Your task to perform on an android device: What's the weather going to be this weekend? Image 0: 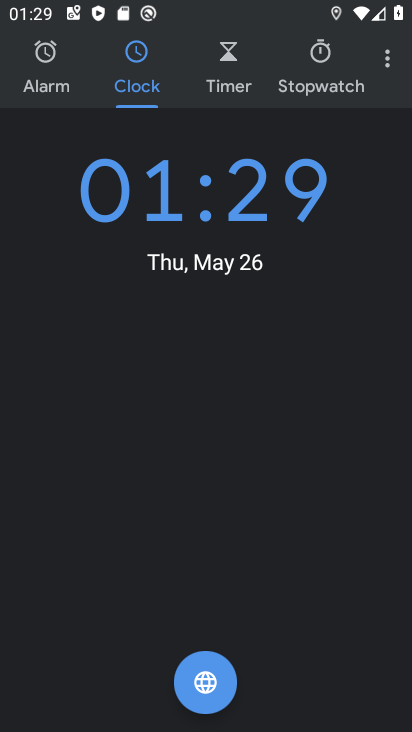
Step 0: press home button
Your task to perform on an android device: What's the weather going to be this weekend? Image 1: 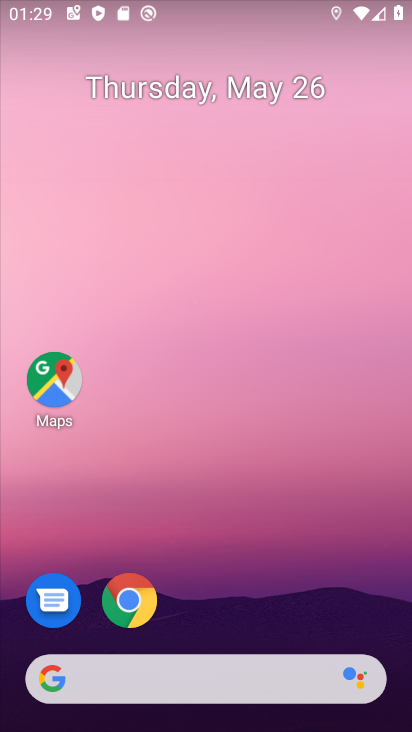
Step 1: drag from (324, 552) to (218, 103)
Your task to perform on an android device: What's the weather going to be this weekend? Image 2: 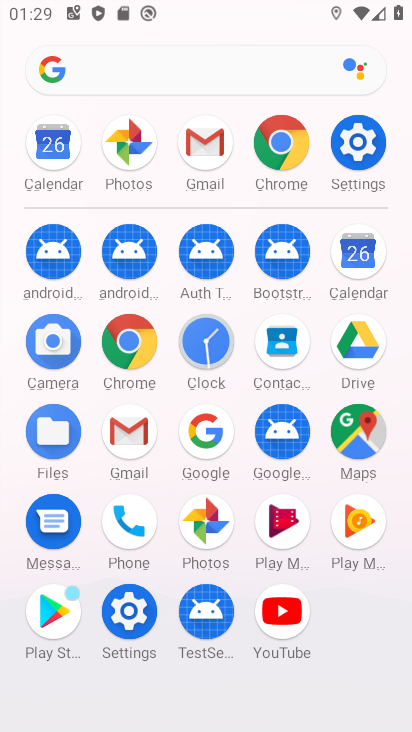
Step 2: click (228, 426)
Your task to perform on an android device: What's the weather going to be this weekend? Image 3: 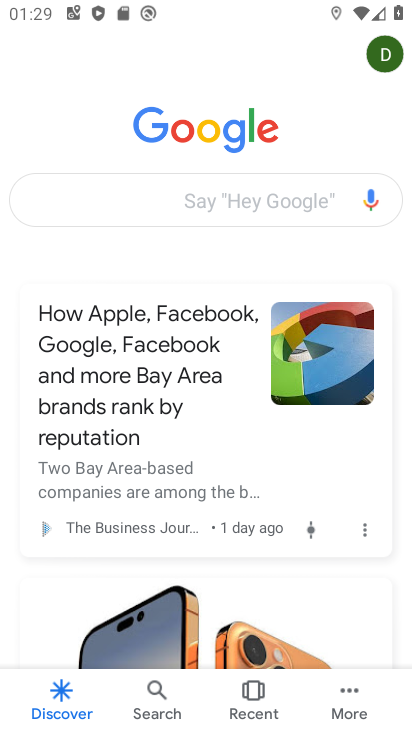
Step 3: click (294, 201)
Your task to perform on an android device: What's the weather going to be this weekend? Image 4: 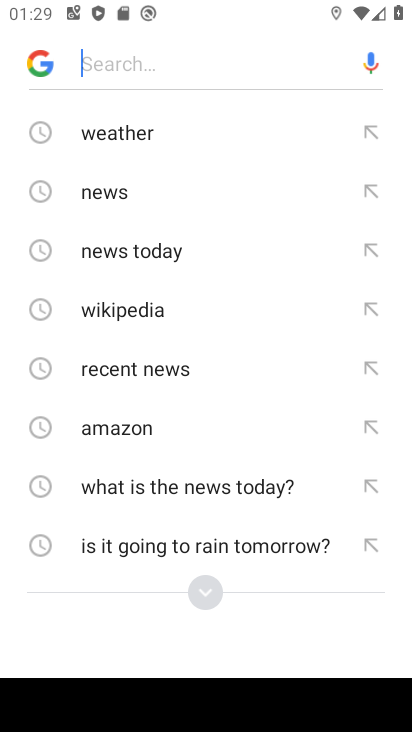
Step 4: click (79, 146)
Your task to perform on an android device: What's the weather going to be this weekend? Image 5: 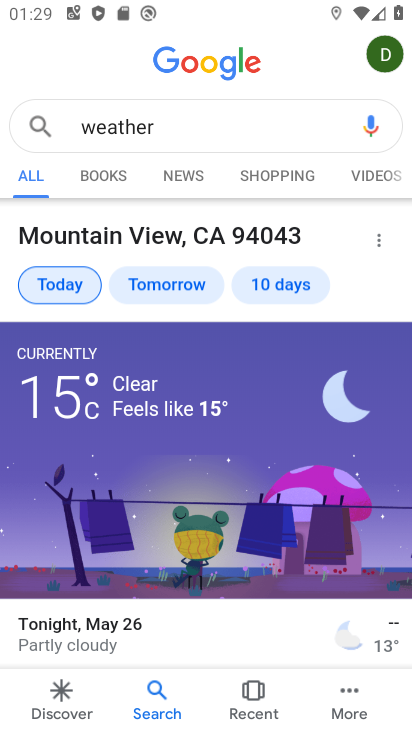
Step 5: click (290, 284)
Your task to perform on an android device: What's the weather going to be this weekend? Image 6: 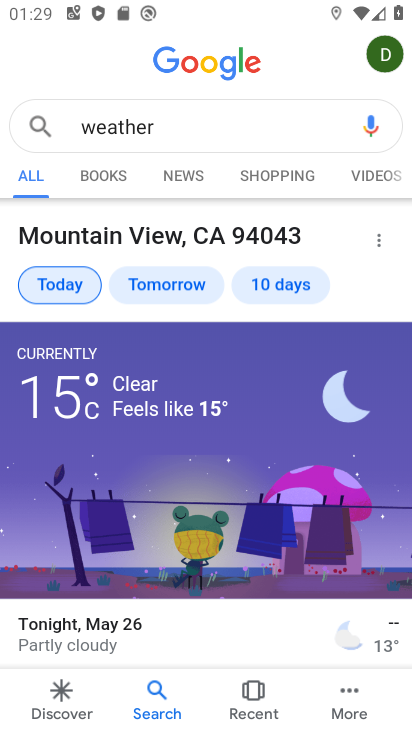
Step 6: click (296, 276)
Your task to perform on an android device: What's the weather going to be this weekend? Image 7: 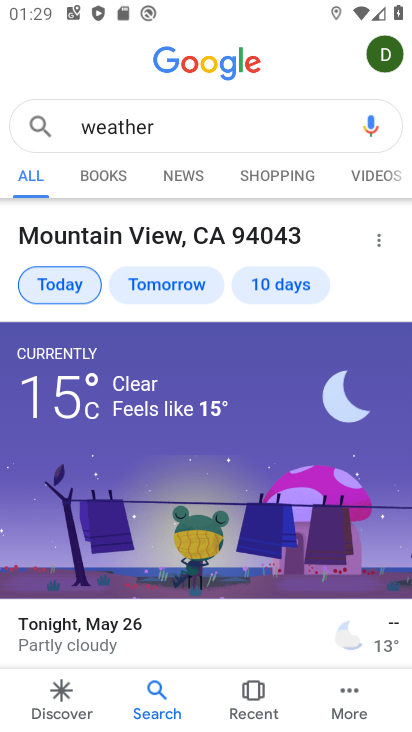
Step 7: click (304, 282)
Your task to perform on an android device: What's the weather going to be this weekend? Image 8: 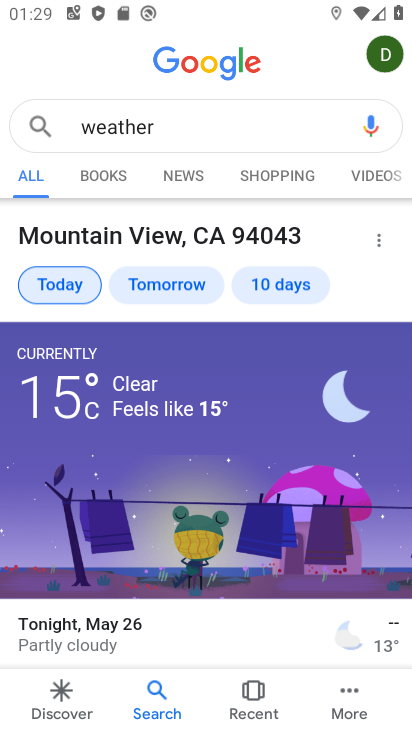
Step 8: click (285, 290)
Your task to perform on an android device: What's the weather going to be this weekend? Image 9: 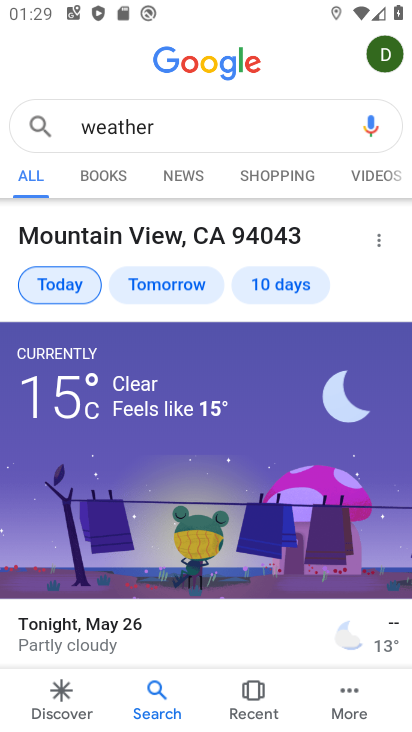
Step 9: click (277, 286)
Your task to perform on an android device: What's the weather going to be this weekend? Image 10: 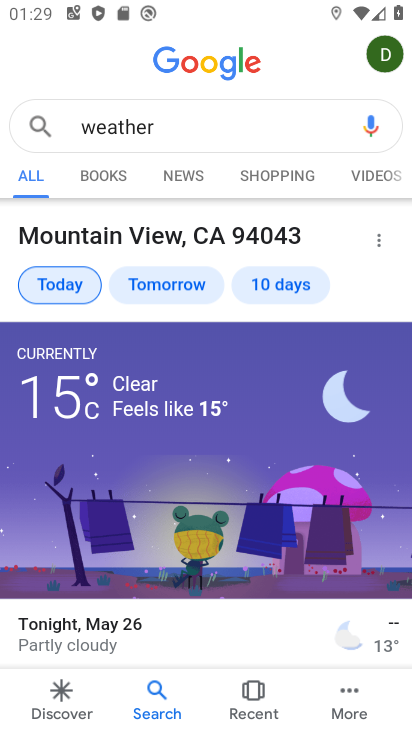
Step 10: click (277, 286)
Your task to perform on an android device: What's the weather going to be this weekend? Image 11: 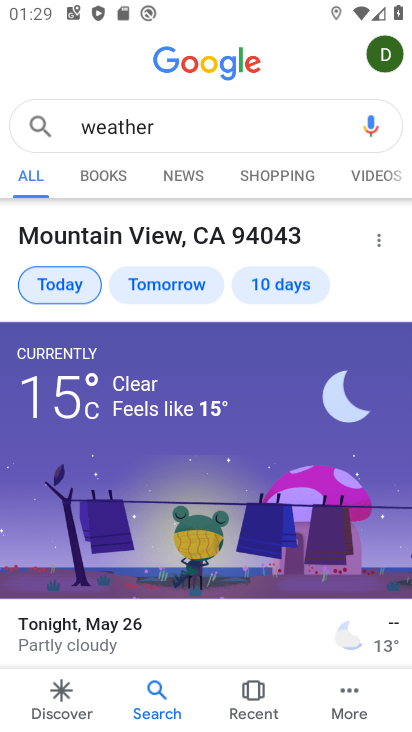
Step 11: click (277, 286)
Your task to perform on an android device: What's the weather going to be this weekend? Image 12: 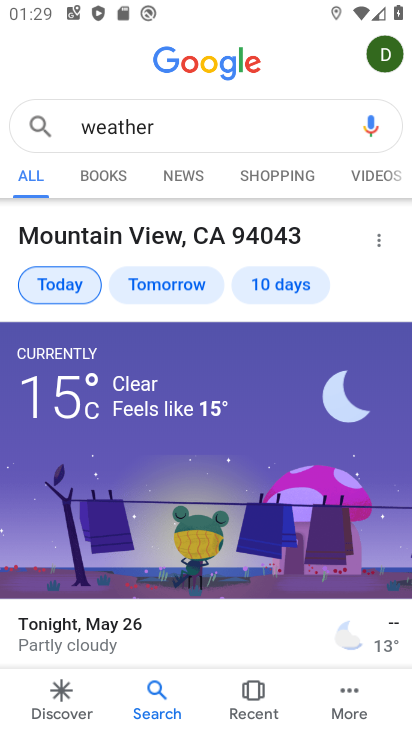
Step 12: click (280, 286)
Your task to perform on an android device: What's the weather going to be this weekend? Image 13: 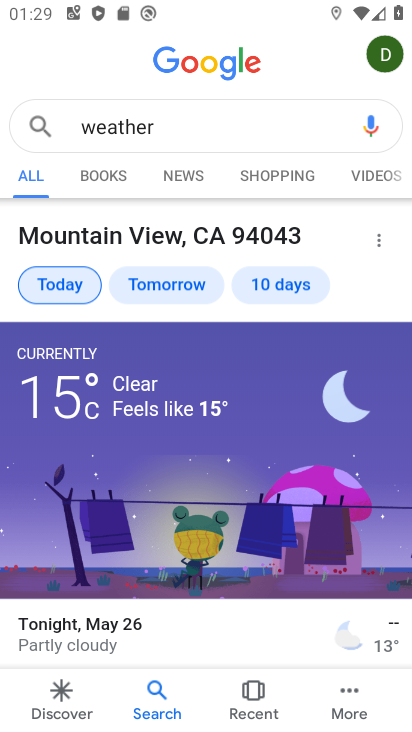
Step 13: click (280, 286)
Your task to perform on an android device: What's the weather going to be this weekend? Image 14: 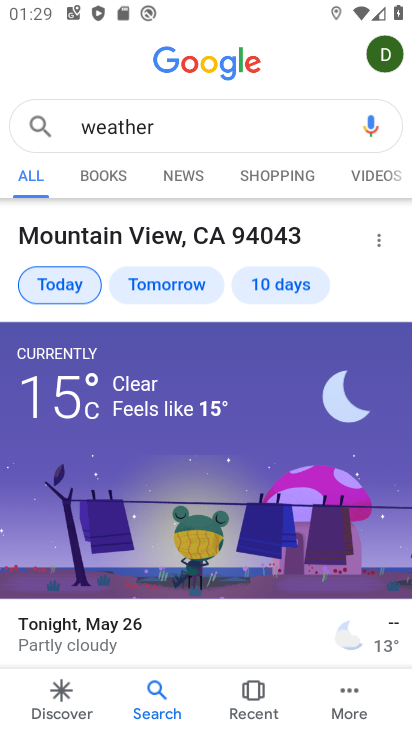
Step 14: click (280, 286)
Your task to perform on an android device: What's the weather going to be this weekend? Image 15: 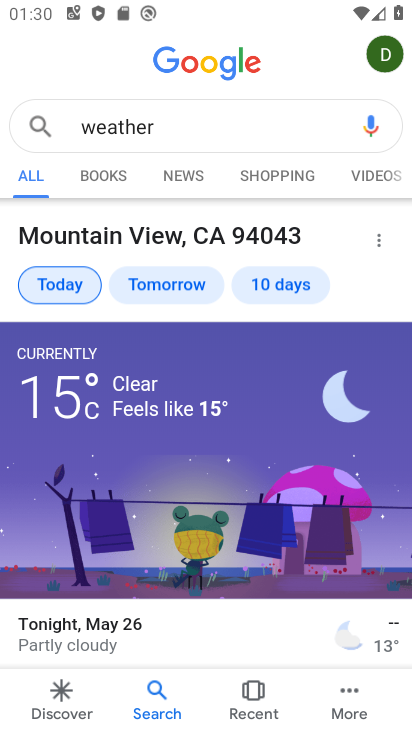
Step 15: click (256, 290)
Your task to perform on an android device: What's the weather going to be this weekend? Image 16: 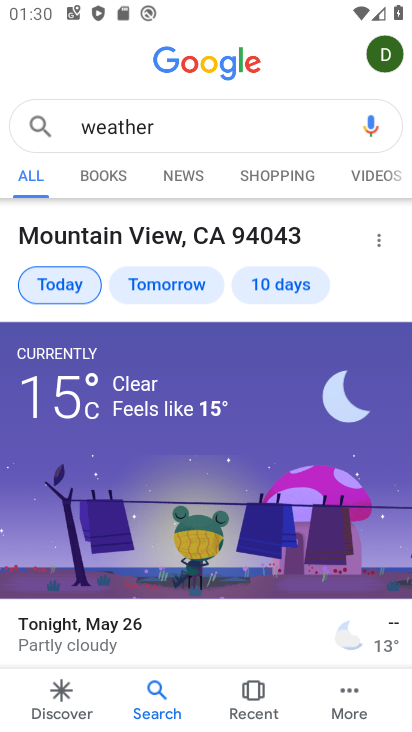
Step 16: click (256, 290)
Your task to perform on an android device: What's the weather going to be this weekend? Image 17: 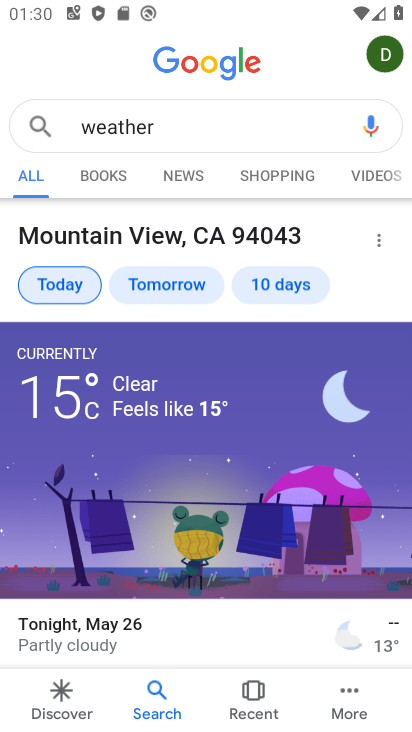
Step 17: click (263, 288)
Your task to perform on an android device: What's the weather going to be this weekend? Image 18: 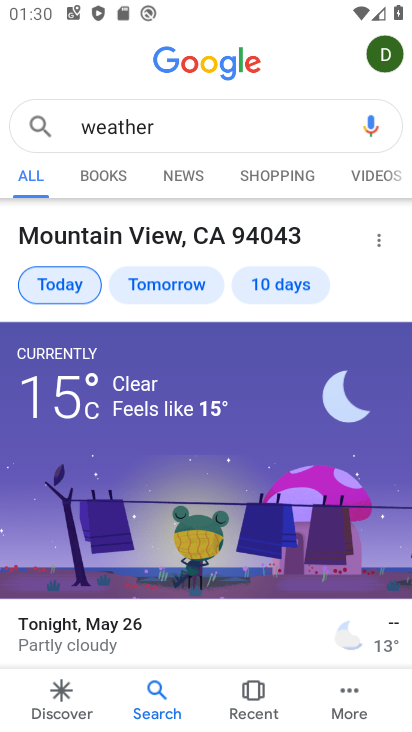
Step 18: click (264, 291)
Your task to perform on an android device: What's the weather going to be this weekend? Image 19: 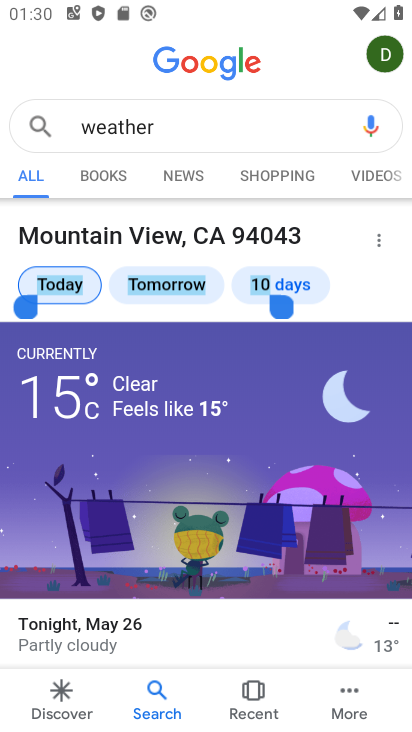
Step 19: click (276, 274)
Your task to perform on an android device: What's the weather going to be this weekend? Image 20: 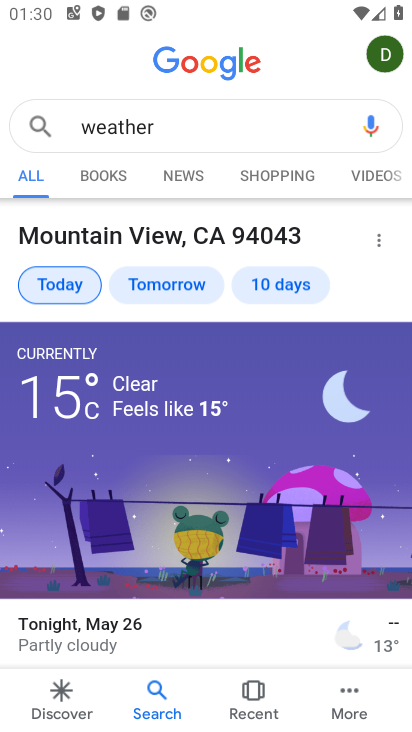
Step 20: click (287, 279)
Your task to perform on an android device: What's the weather going to be this weekend? Image 21: 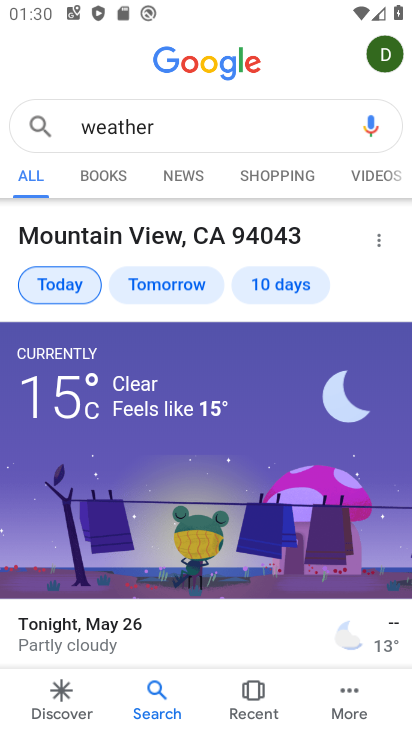
Step 21: click (301, 297)
Your task to perform on an android device: What's the weather going to be this weekend? Image 22: 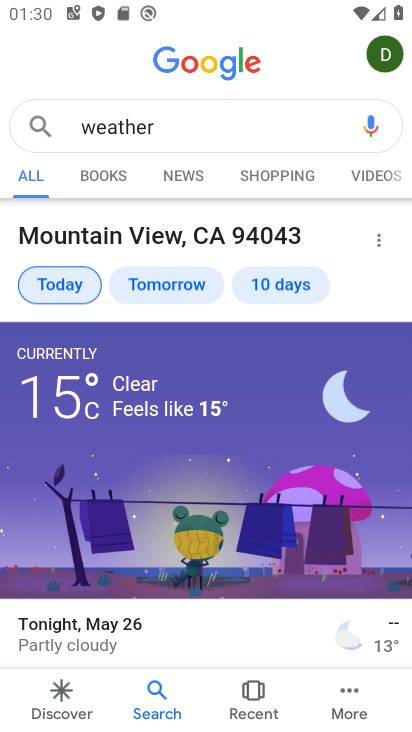
Step 22: click (302, 298)
Your task to perform on an android device: What's the weather going to be this weekend? Image 23: 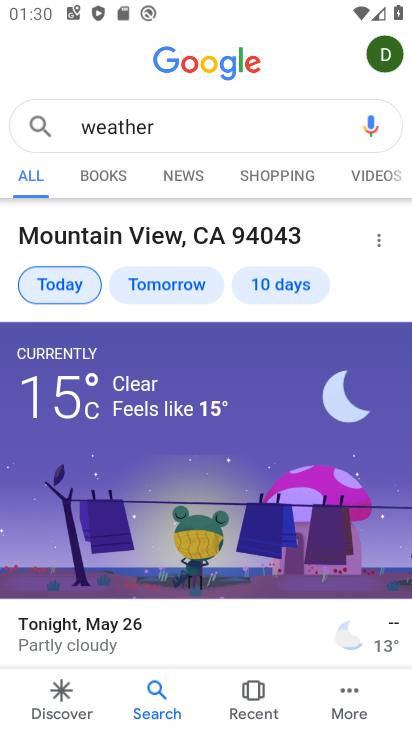
Step 23: click (300, 290)
Your task to perform on an android device: What's the weather going to be this weekend? Image 24: 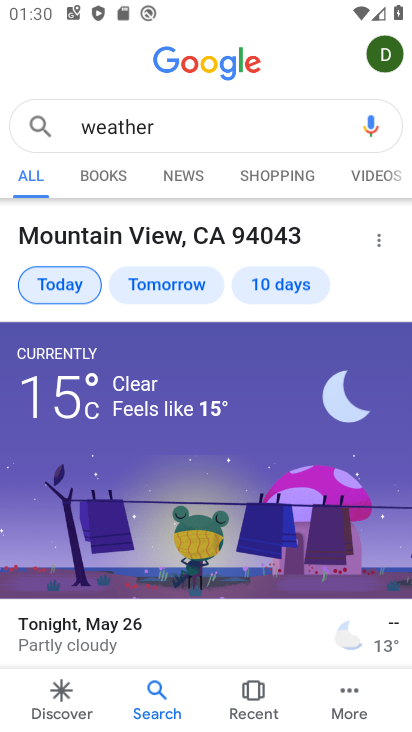
Step 24: drag from (285, 572) to (366, 193)
Your task to perform on an android device: What's the weather going to be this weekend? Image 25: 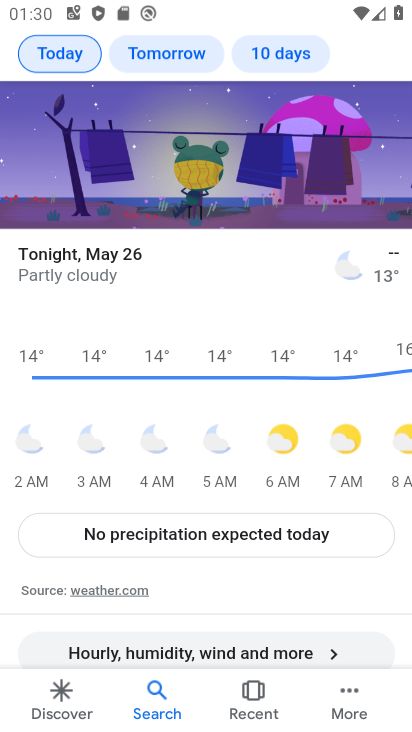
Step 25: drag from (331, 209) to (340, 584)
Your task to perform on an android device: What's the weather going to be this weekend? Image 26: 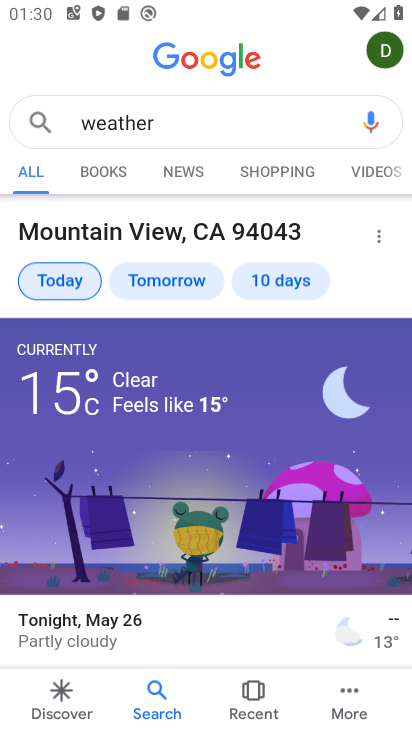
Step 26: click (261, 283)
Your task to perform on an android device: What's the weather going to be this weekend? Image 27: 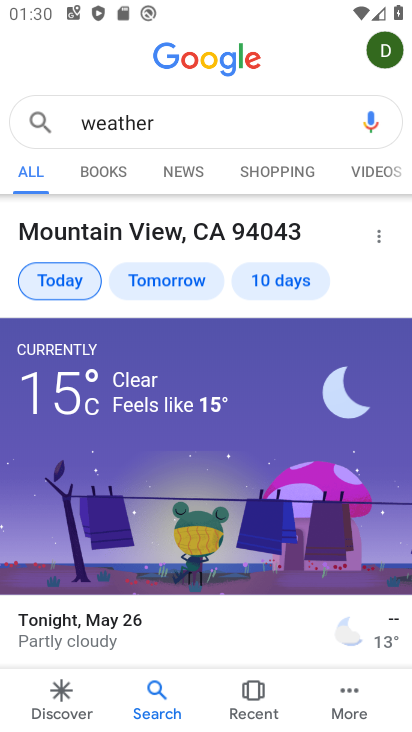
Step 27: click (261, 283)
Your task to perform on an android device: What's the weather going to be this weekend? Image 28: 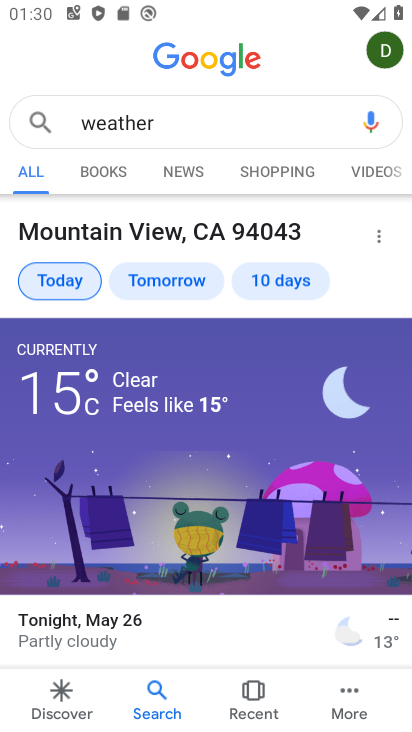
Step 28: click (261, 283)
Your task to perform on an android device: What's the weather going to be this weekend? Image 29: 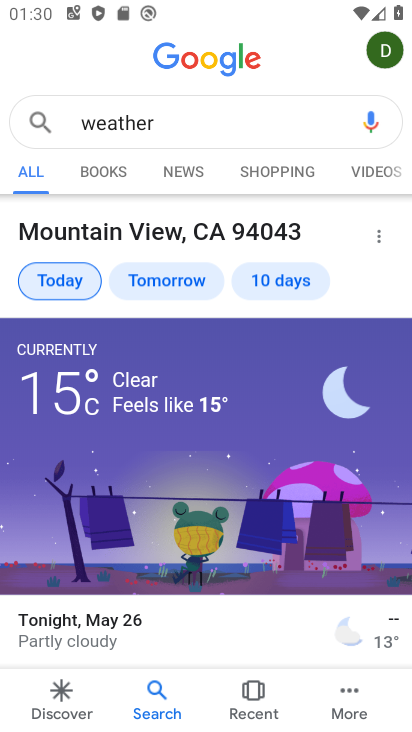
Step 29: click (261, 283)
Your task to perform on an android device: What's the weather going to be this weekend? Image 30: 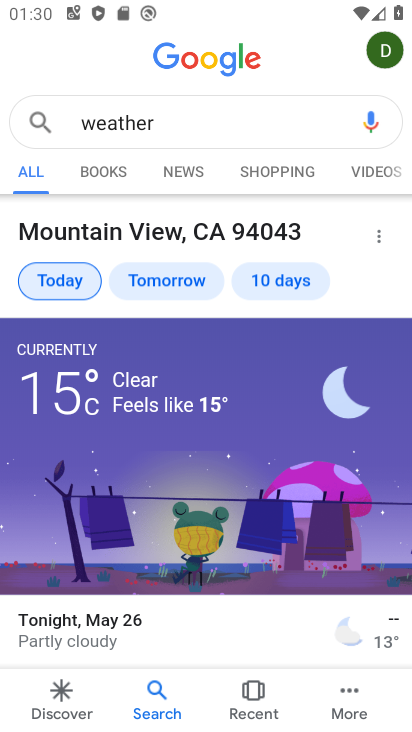
Step 30: click (258, 280)
Your task to perform on an android device: What's the weather going to be this weekend? Image 31: 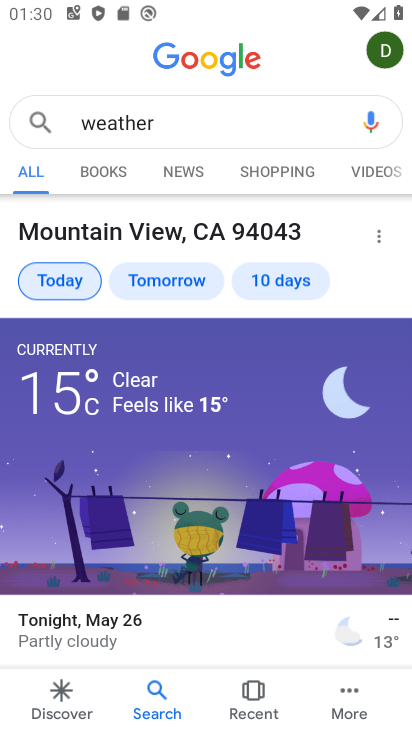
Step 31: click (211, 100)
Your task to perform on an android device: What's the weather going to be this weekend? Image 32: 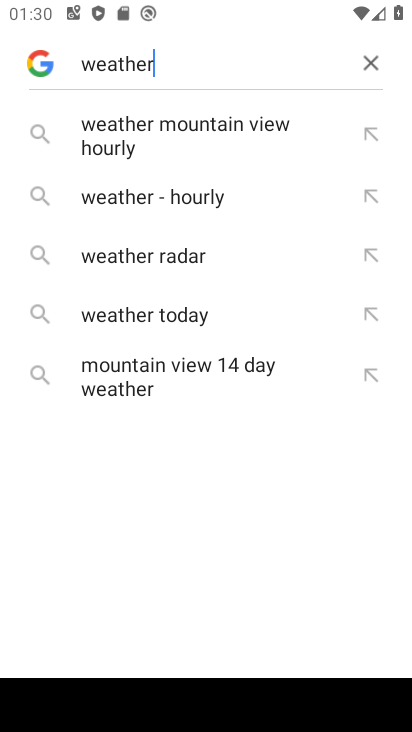
Step 32: click (372, 64)
Your task to perform on an android device: What's the weather going to be this weekend? Image 33: 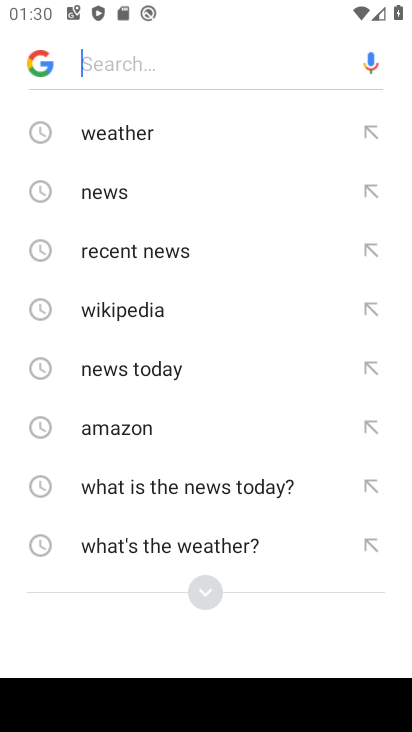
Step 33: click (190, 132)
Your task to perform on an android device: What's the weather going to be this weekend? Image 34: 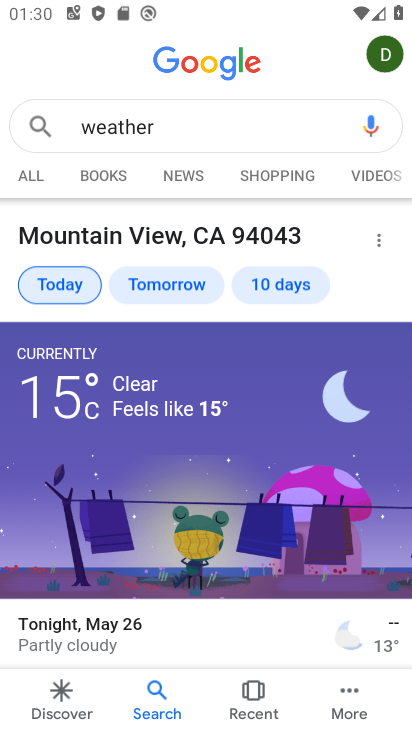
Step 34: click (272, 283)
Your task to perform on an android device: What's the weather going to be this weekend? Image 35: 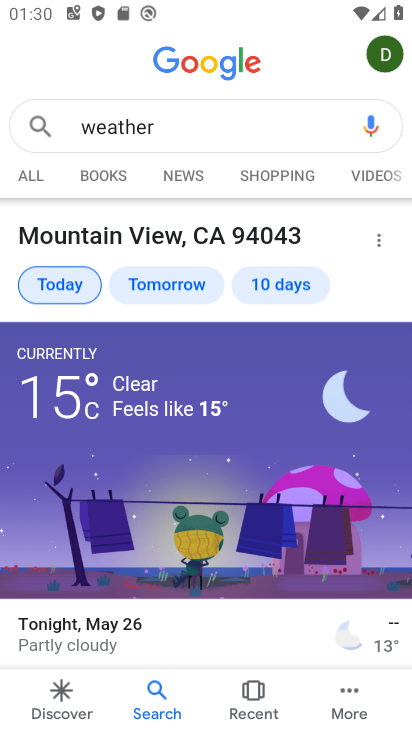
Step 35: click (283, 282)
Your task to perform on an android device: What's the weather going to be this weekend? Image 36: 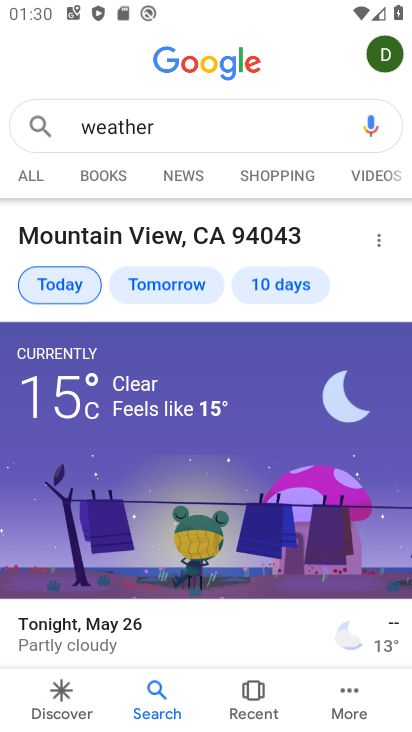
Step 36: click (283, 282)
Your task to perform on an android device: What's the weather going to be this weekend? Image 37: 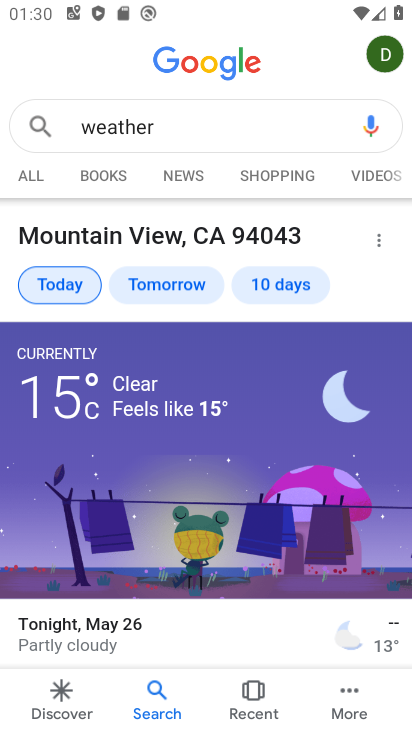
Step 37: click (283, 282)
Your task to perform on an android device: What's the weather going to be this weekend? Image 38: 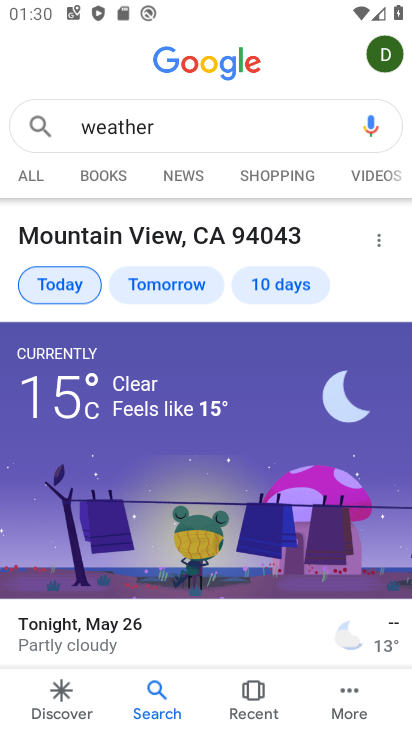
Step 38: click (283, 282)
Your task to perform on an android device: What's the weather going to be this weekend? Image 39: 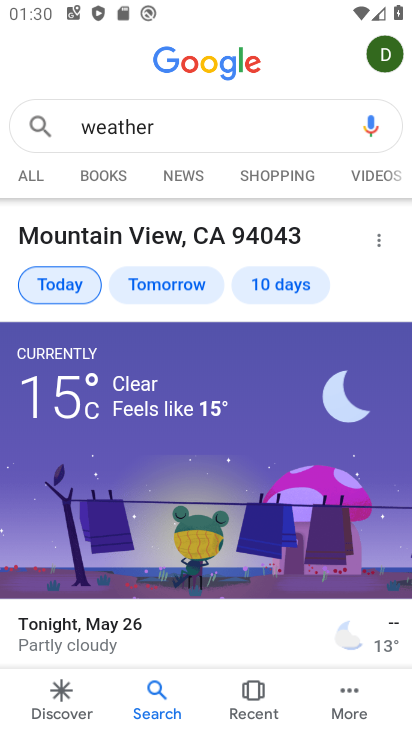
Step 39: click (283, 282)
Your task to perform on an android device: What's the weather going to be this weekend? Image 40: 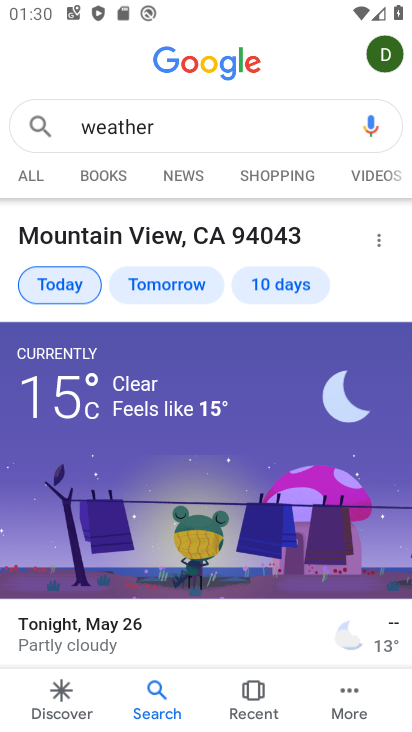
Step 40: click (283, 281)
Your task to perform on an android device: What's the weather going to be this weekend? Image 41: 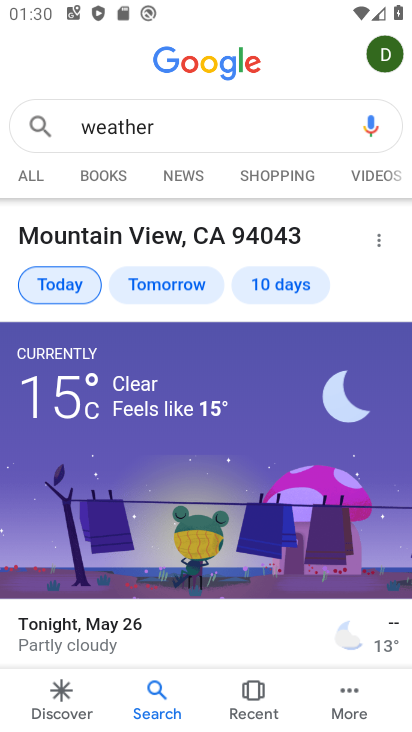
Step 41: click (231, 209)
Your task to perform on an android device: What's the weather going to be this weekend? Image 42: 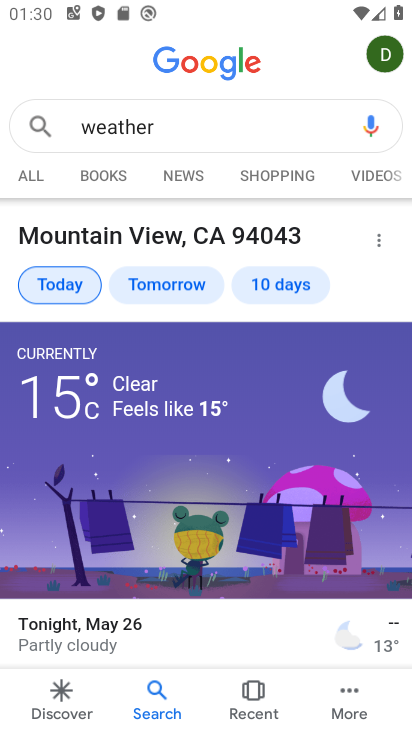
Step 42: click (175, 115)
Your task to perform on an android device: What's the weather going to be this weekend? Image 43: 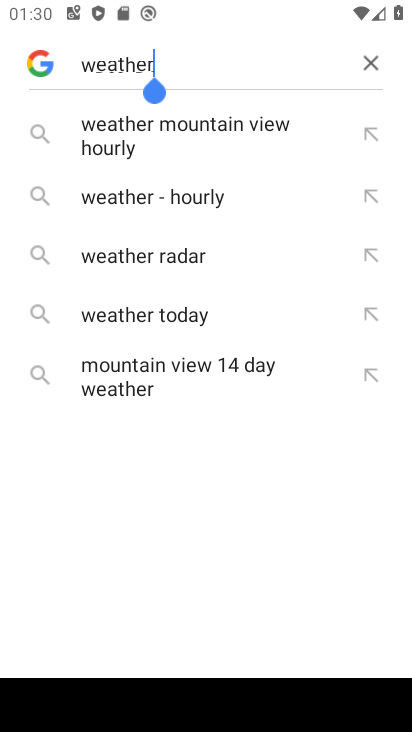
Step 43: click (378, 53)
Your task to perform on an android device: What's the weather going to be this weekend? Image 44: 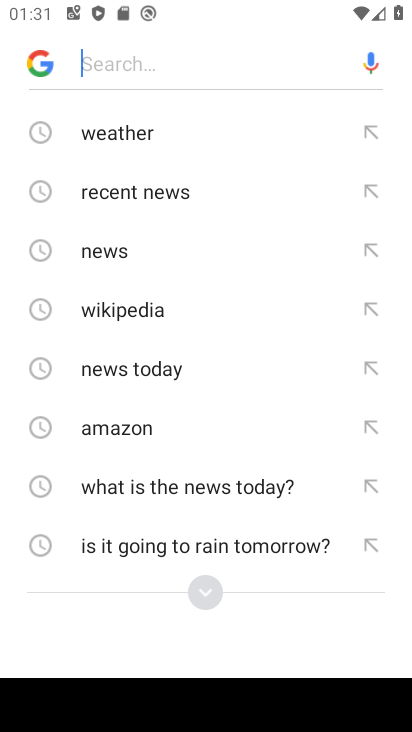
Step 44: type "weather weekend"
Your task to perform on an android device: What's the weather going to be this weekend? Image 45: 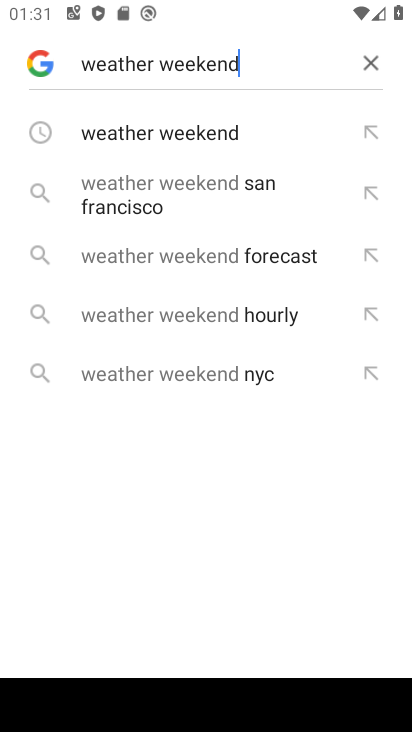
Step 45: click (251, 135)
Your task to perform on an android device: What's the weather going to be this weekend? Image 46: 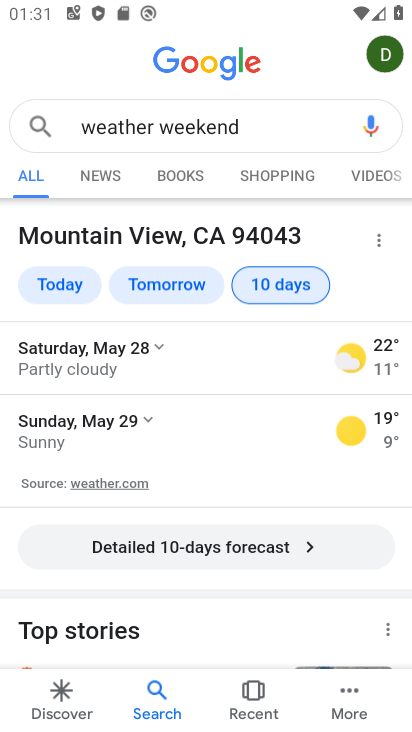
Step 46: click (227, 551)
Your task to perform on an android device: What's the weather going to be this weekend? Image 47: 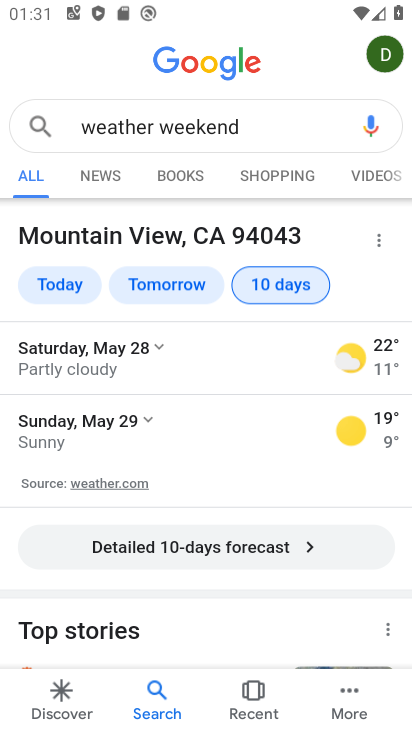
Step 47: click (191, 546)
Your task to perform on an android device: What's the weather going to be this weekend? Image 48: 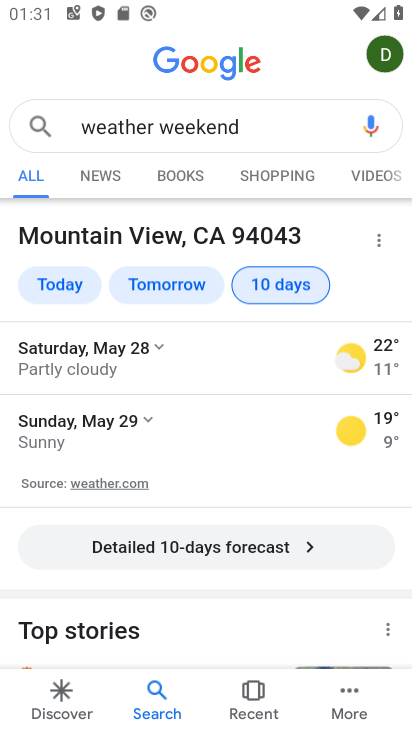
Step 48: click (287, 548)
Your task to perform on an android device: What's the weather going to be this weekend? Image 49: 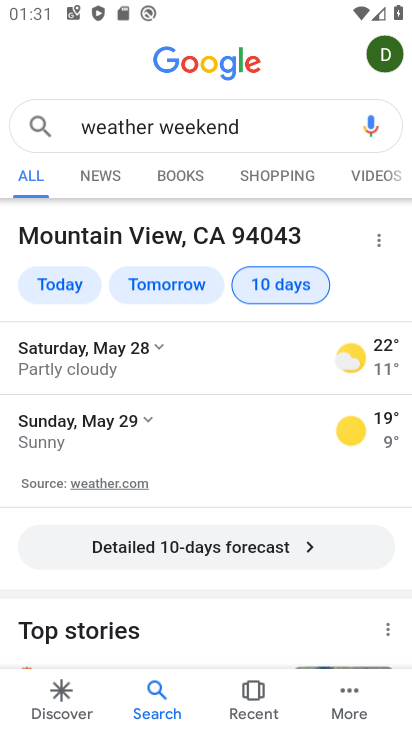
Step 49: click (293, 543)
Your task to perform on an android device: What's the weather going to be this weekend? Image 50: 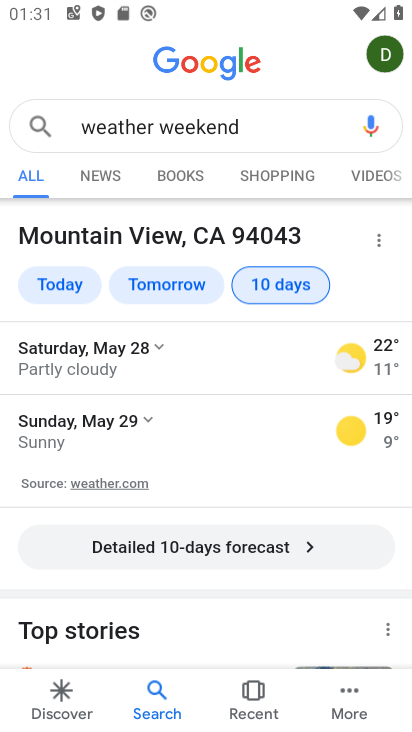
Step 50: task complete